Your task to perform on an android device: What's the weather today? Image 0: 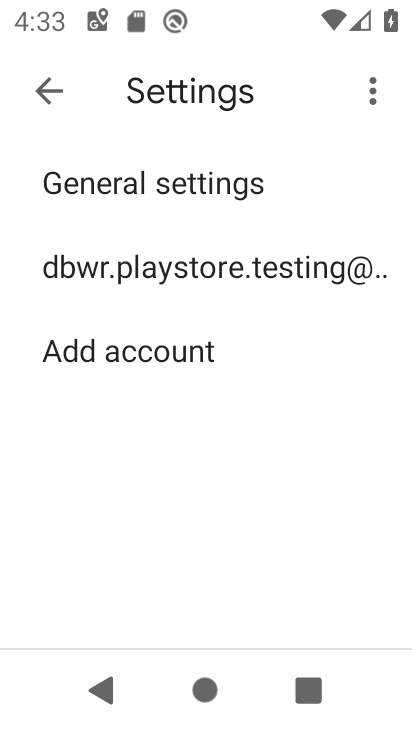
Step 0: press home button
Your task to perform on an android device: What's the weather today? Image 1: 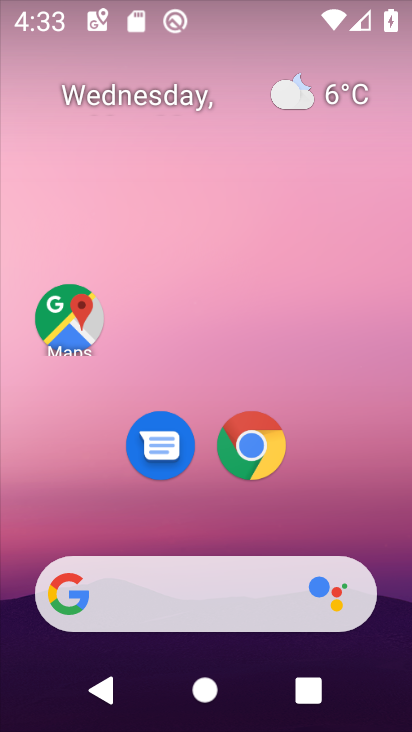
Step 1: click (313, 101)
Your task to perform on an android device: What's the weather today? Image 2: 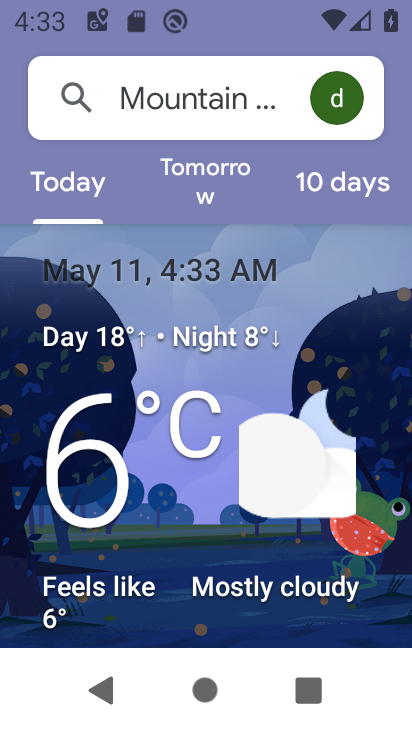
Step 2: drag from (204, 469) to (236, 221)
Your task to perform on an android device: What's the weather today? Image 3: 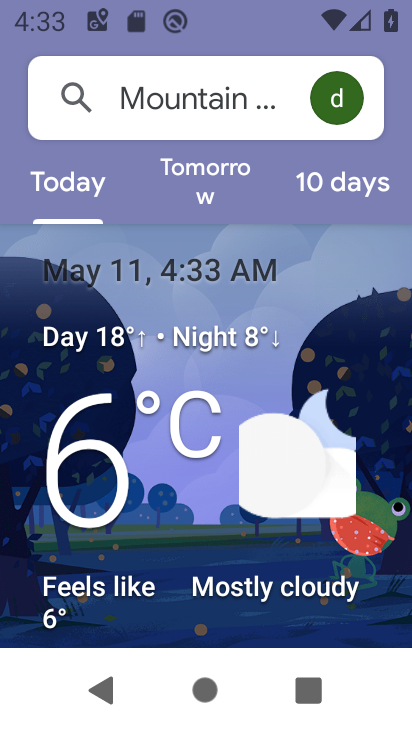
Step 3: click (123, 338)
Your task to perform on an android device: What's the weather today? Image 4: 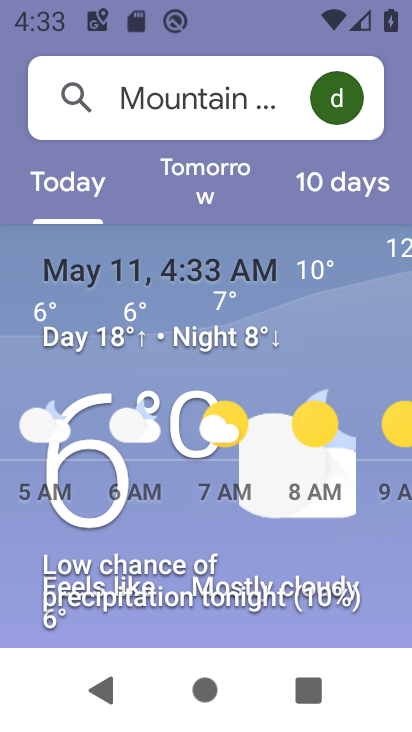
Step 4: click (232, 203)
Your task to perform on an android device: What's the weather today? Image 5: 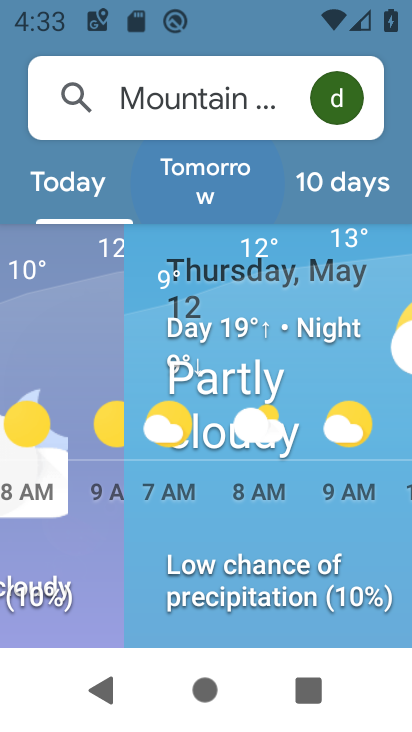
Step 5: task complete